Your task to perform on an android device: open app "The Home Depot" Image 0: 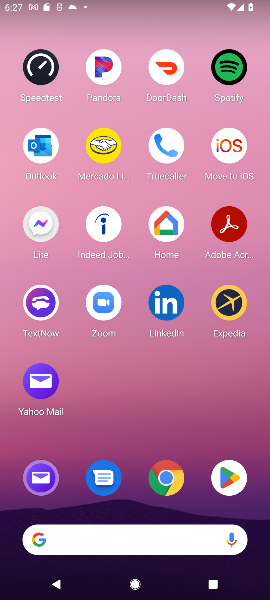
Step 0: press home button
Your task to perform on an android device: open app "The Home Depot" Image 1: 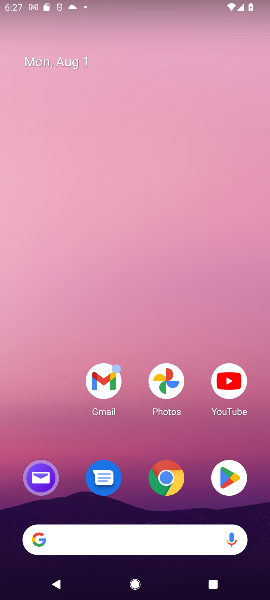
Step 1: click (235, 469)
Your task to perform on an android device: open app "The Home Depot" Image 2: 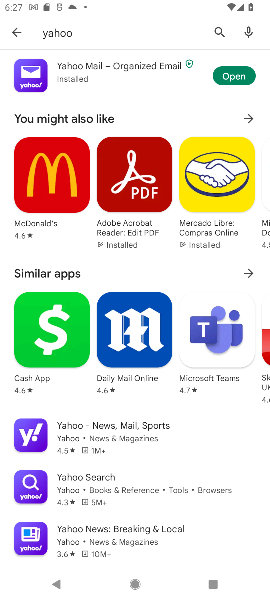
Step 2: click (211, 31)
Your task to perform on an android device: open app "The Home Depot" Image 3: 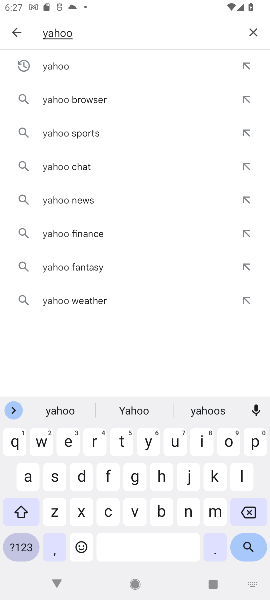
Step 3: click (247, 32)
Your task to perform on an android device: open app "The Home Depot" Image 4: 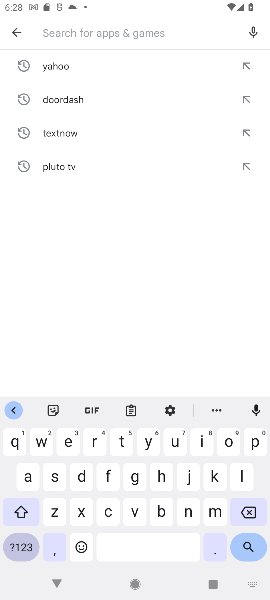
Step 4: click (80, 475)
Your task to perform on an android device: open app "The Home Depot" Image 5: 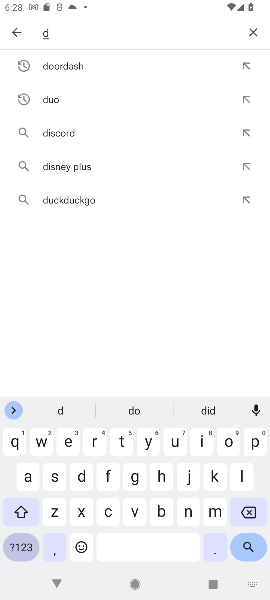
Step 5: click (69, 443)
Your task to perform on an android device: open app "The Home Depot" Image 6: 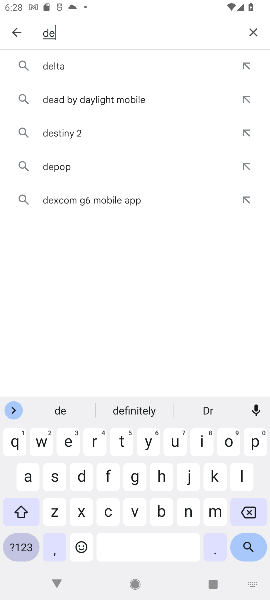
Step 6: click (253, 447)
Your task to perform on an android device: open app "The Home Depot" Image 7: 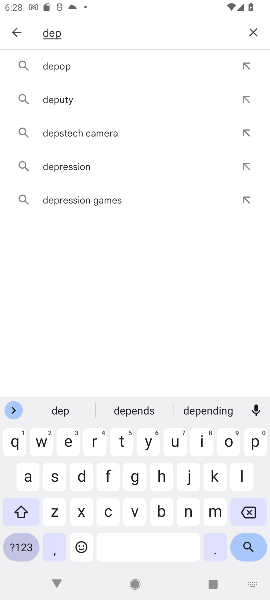
Step 7: click (231, 446)
Your task to perform on an android device: open app "The Home Depot" Image 8: 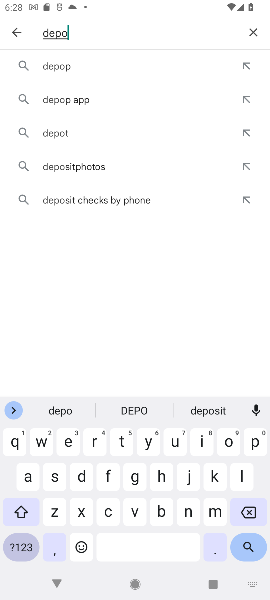
Step 8: click (119, 445)
Your task to perform on an android device: open app "The Home Depot" Image 9: 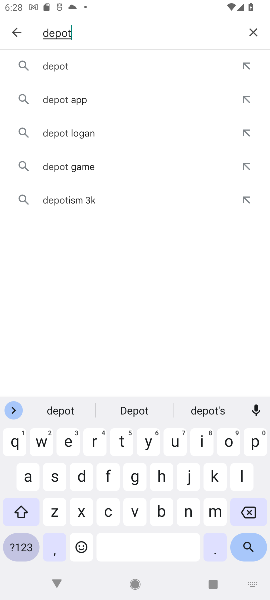
Step 9: click (74, 66)
Your task to perform on an android device: open app "The Home Depot" Image 10: 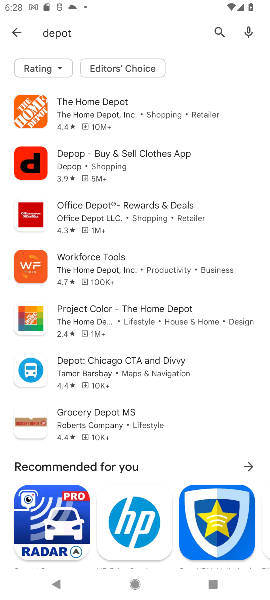
Step 10: click (94, 125)
Your task to perform on an android device: open app "The Home Depot" Image 11: 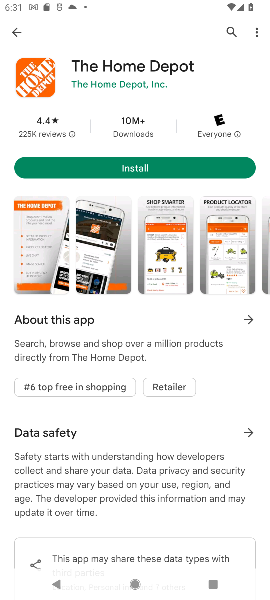
Step 11: task complete